Your task to perform on an android device: Go to CNN.com Image 0: 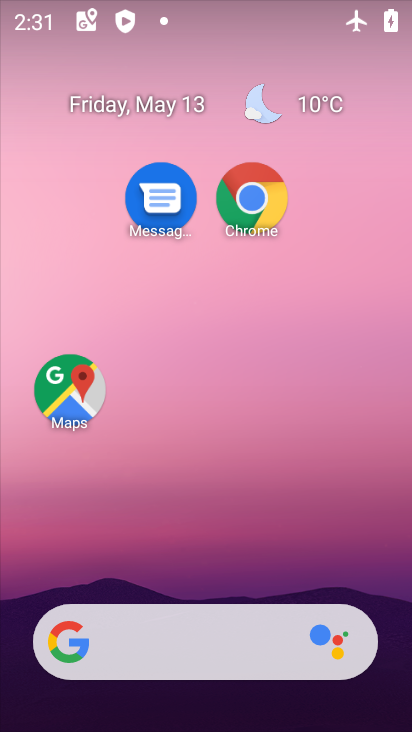
Step 0: click (253, 203)
Your task to perform on an android device: Go to CNN.com Image 1: 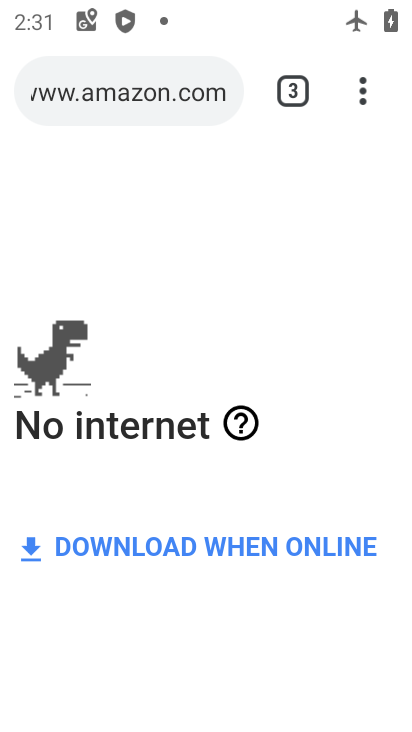
Step 1: click (307, 102)
Your task to perform on an android device: Go to CNN.com Image 2: 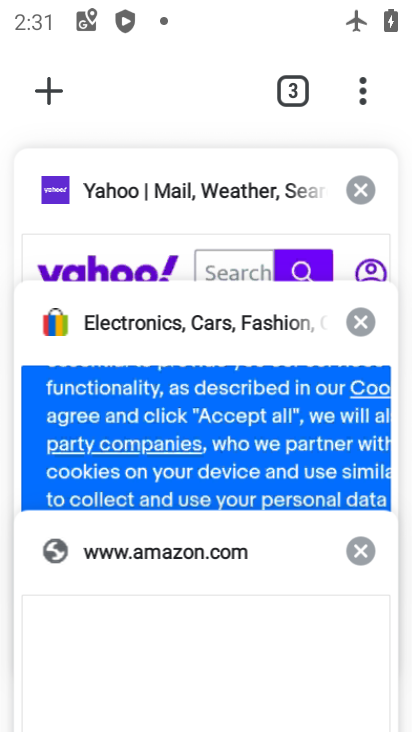
Step 2: click (37, 94)
Your task to perform on an android device: Go to CNN.com Image 3: 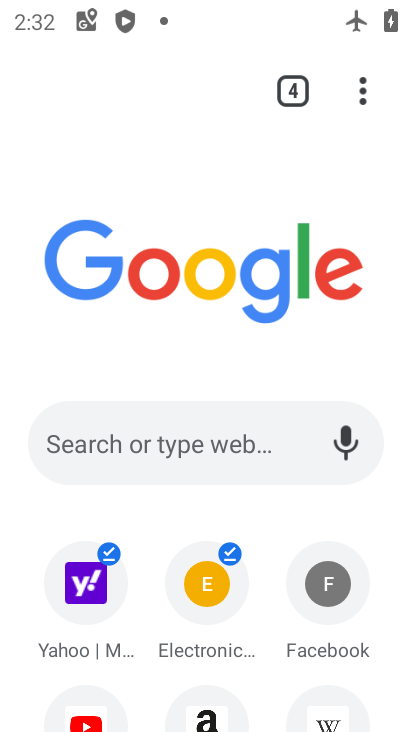
Step 3: click (130, 433)
Your task to perform on an android device: Go to CNN.com Image 4: 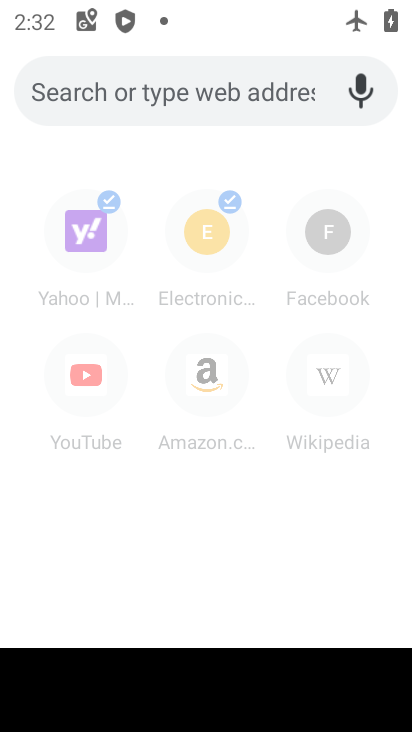
Step 4: type "cnn"
Your task to perform on an android device: Go to CNN.com Image 5: 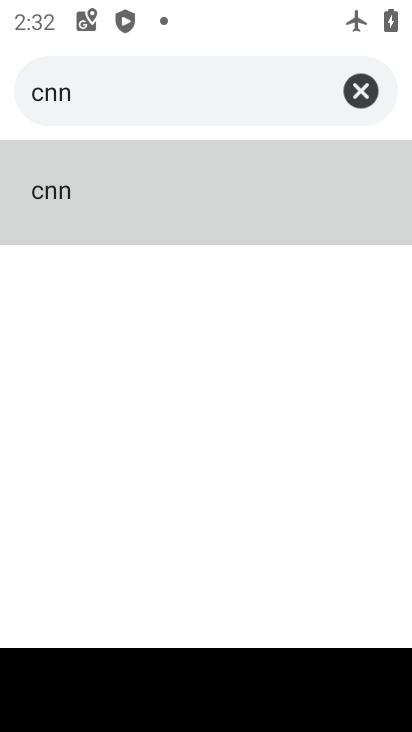
Step 5: type ".com"
Your task to perform on an android device: Go to CNN.com Image 6: 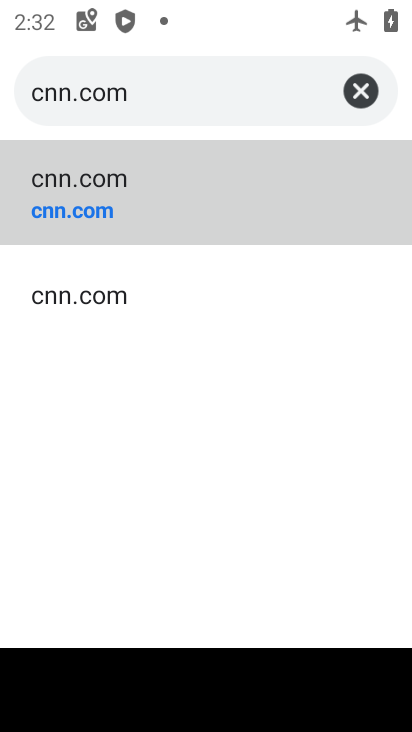
Step 6: click (287, 161)
Your task to perform on an android device: Go to CNN.com Image 7: 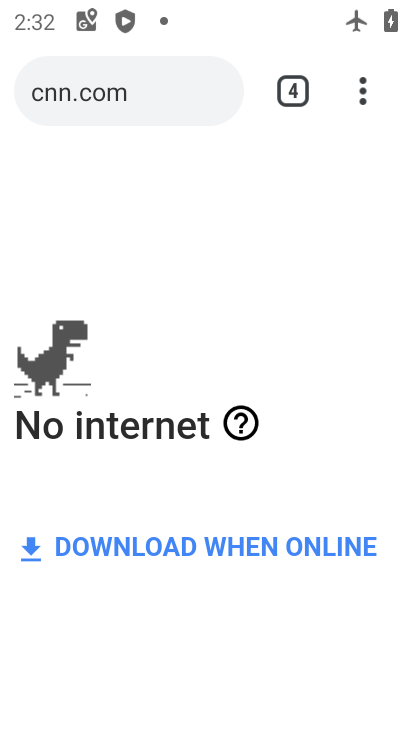
Step 7: task complete